Your task to perform on an android device: turn off smart reply in the gmail app Image 0: 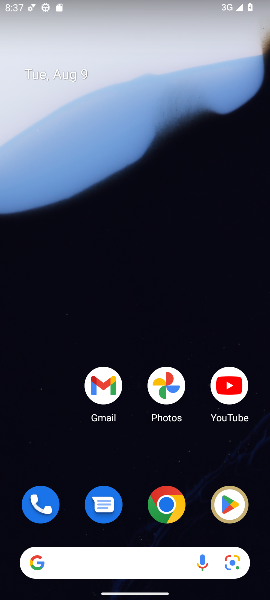
Step 0: click (106, 389)
Your task to perform on an android device: turn off smart reply in the gmail app Image 1: 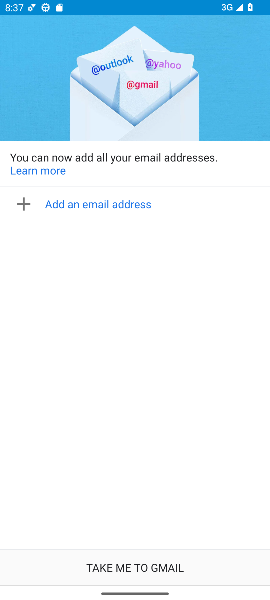
Step 1: click (143, 567)
Your task to perform on an android device: turn off smart reply in the gmail app Image 2: 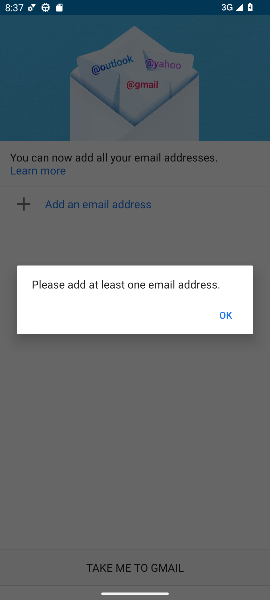
Step 2: task complete